Your task to perform on an android device: Open privacy settings Image 0: 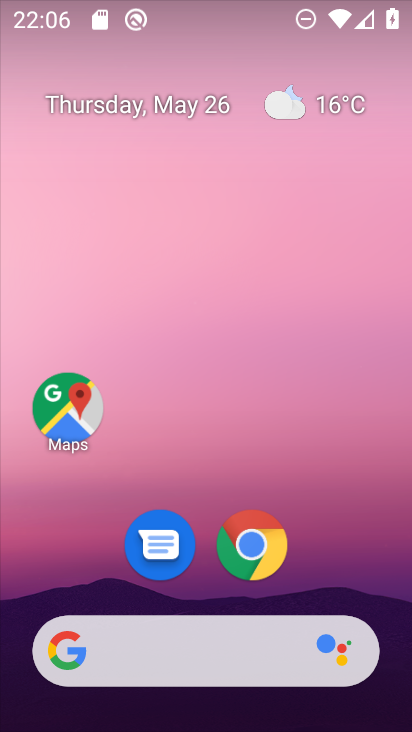
Step 0: click (261, 545)
Your task to perform on an android device: Open privacy settings Image 1: 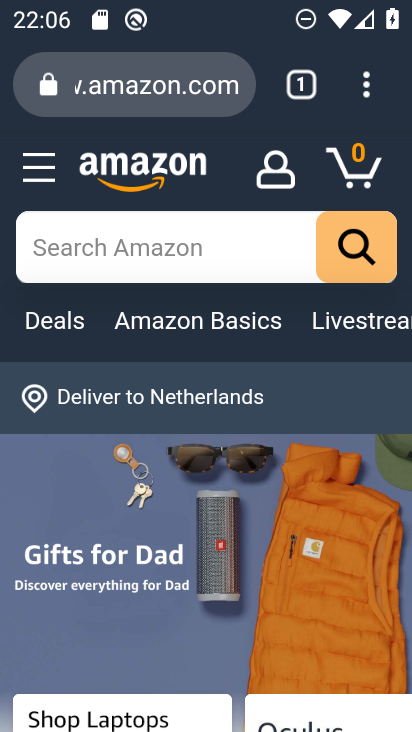
Step 1: click (355, 91)
Your task to perform on an android device: Open privacy settings Image 2: 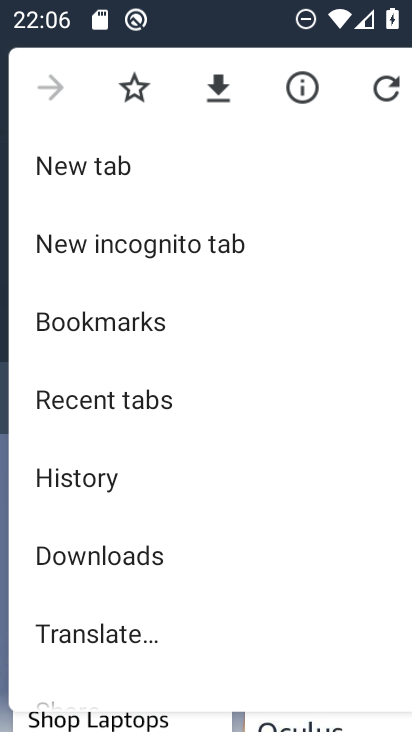
Step 2: drag from (118, 643) to (220, 230)
Your task to perform on an android device: Open privacy settings Image 3: 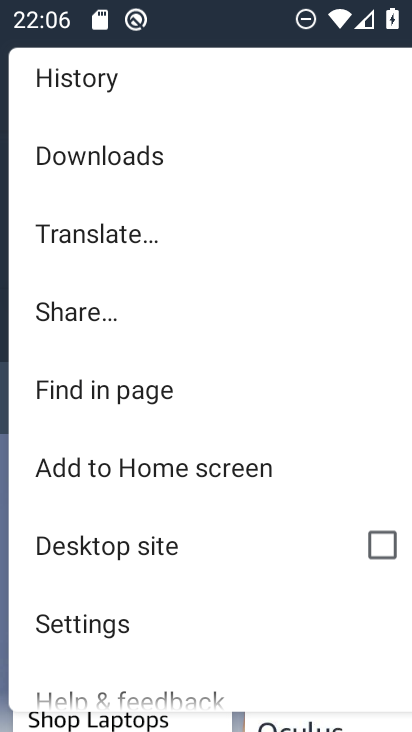
Step 3: click (130, 627)
Your task to perform on an android device: Open privacy settings Image 4: 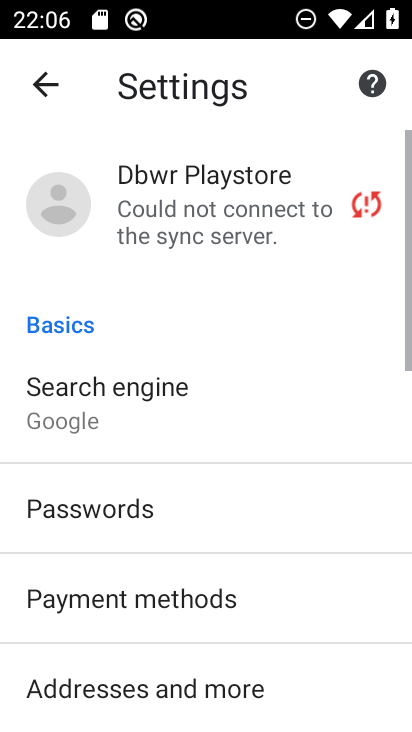
Step 4: drag from (208, 594) to (211, 136)
Your task to perform on an android device: Open privacy settings Image 5: 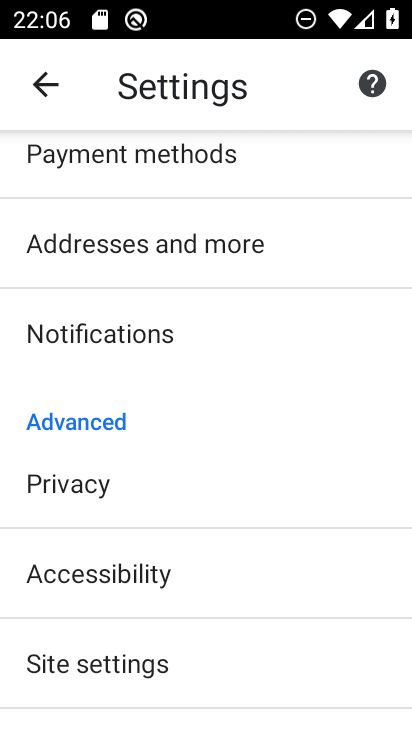
Step 5: click (97, 482)
Your task to perform on an android device: Open privacy settings Image 6: 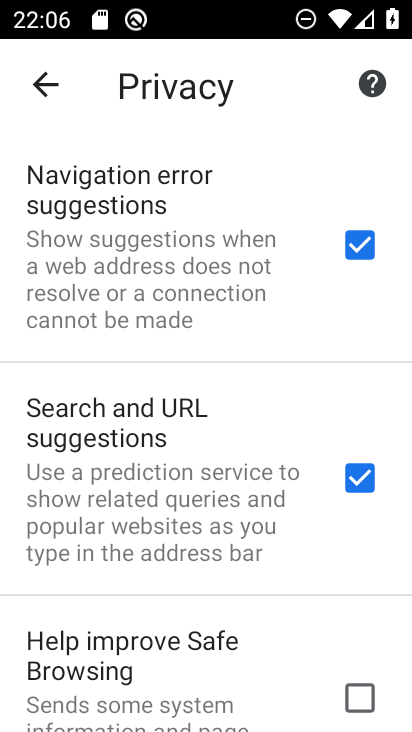
Step 6: task complete